Your task to perform on an android device: Open calendar and show me the second week of next month Image 0: 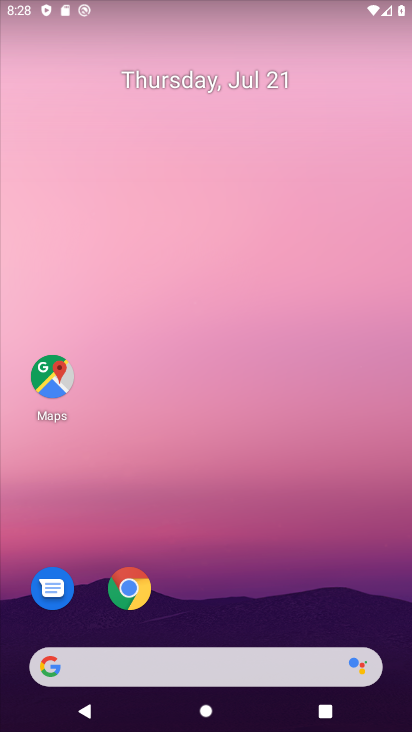
Step 0: click (100, 65)
Your task to perform on an android device: Open calendar and show me the second week of next month Image 1: 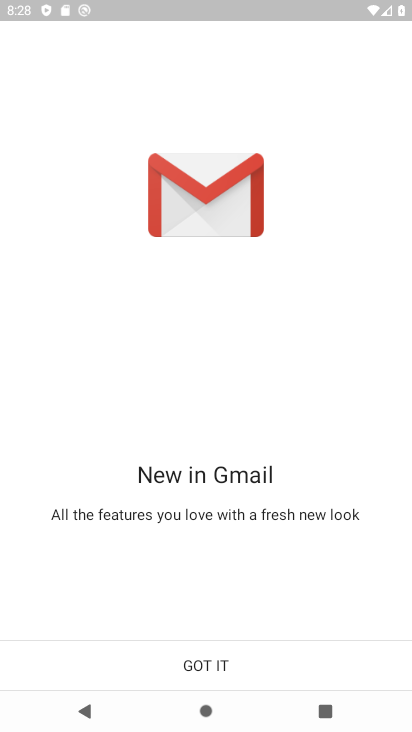
Step 1: drag from (225, 538) to (165, 118)
Your task to perform on an android device: Open calendar and show me the second week of next month Image 2: 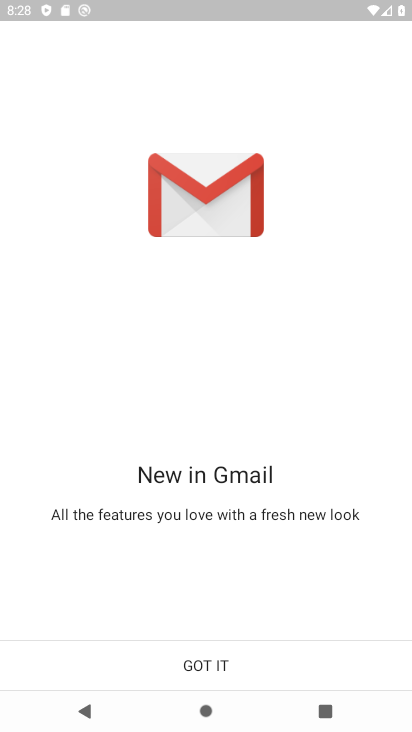
Step 2: press back button
Your task to perform on an android device: Open calendar and show me the second week of next month Image 3: 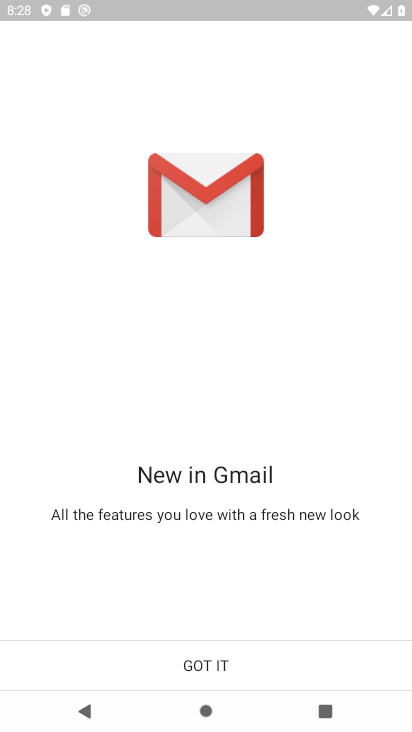
Step 3: press back button
Your task to perform on an android device: Open calendar and show me the second week of next month Image 4: 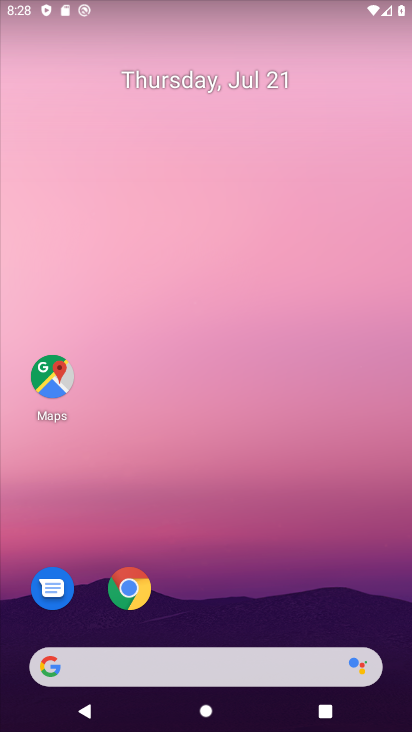
Step 4: drag from (235, 652) to (165, 134)
Your task to perform on an android device: Open calendar and show me the second week of next month Image 5: 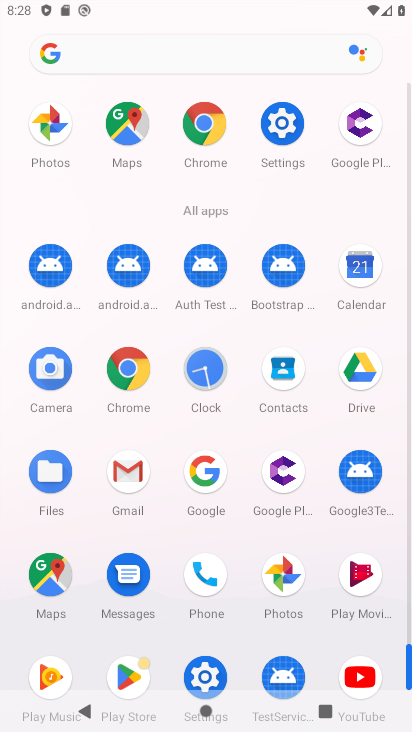
Step 5: click (366, 265)
Your task to perform on an android device: Open calendar and show me the second week of next month Image 6: 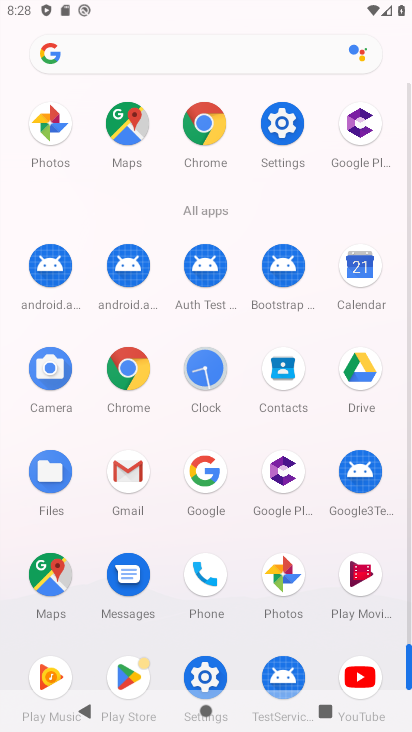
Step 6: click (366, 267)
Your task to perform on an android device: Open calendar and show me the second week of next month Image 7: 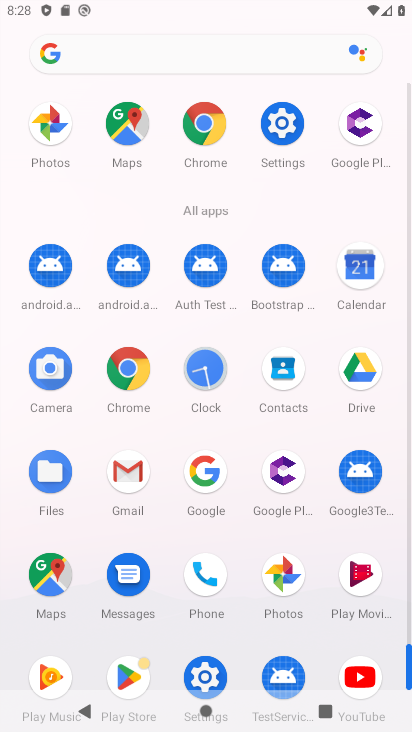
Step 7: click (366, 268)
Your task to perform on an android device: Open calendar and show me the second week of next month Image 8: 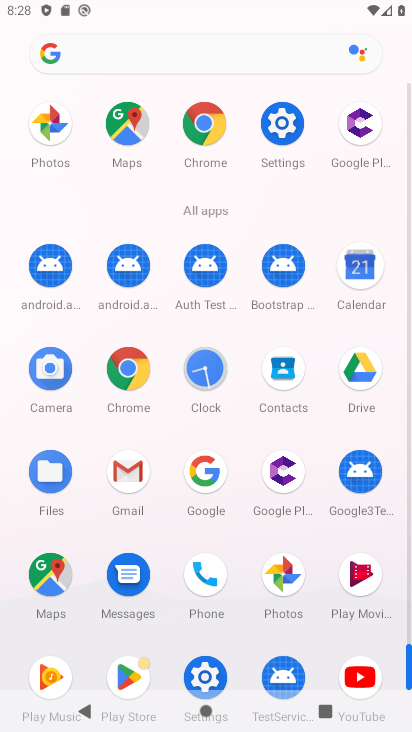
Step 8: click (366, 268)
Your task to perform on an android device: Open calendar and show me the second week of next month Image 9: 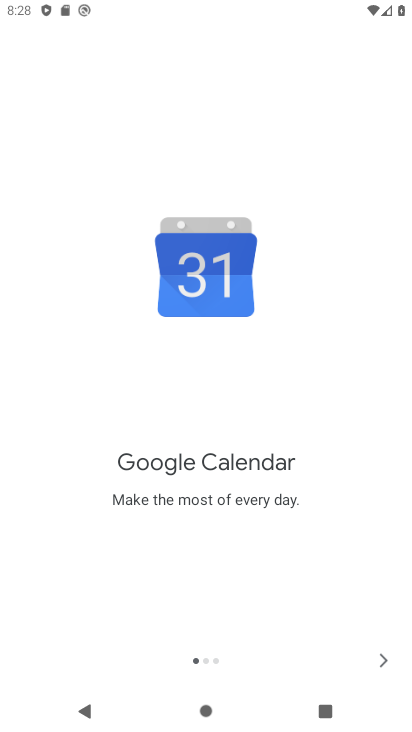
Step 9: click (378, 648)
Your task to perform on an android device: Open calendar and show me the second week of next month Image 10: 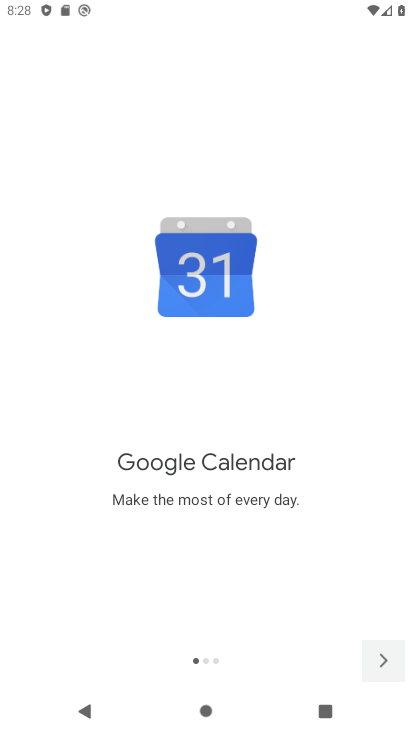
Step 10: click (385, 658)
Your task to perform on an android device: Open calendar and show me the second week of next month Image 11: 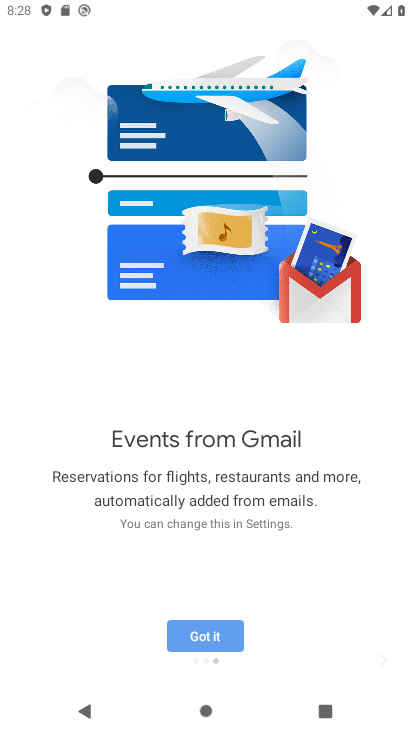
Step 11: click (385, 658)
Your task to perform on an android device: Open calendar and show me the second week of next month Image 12: 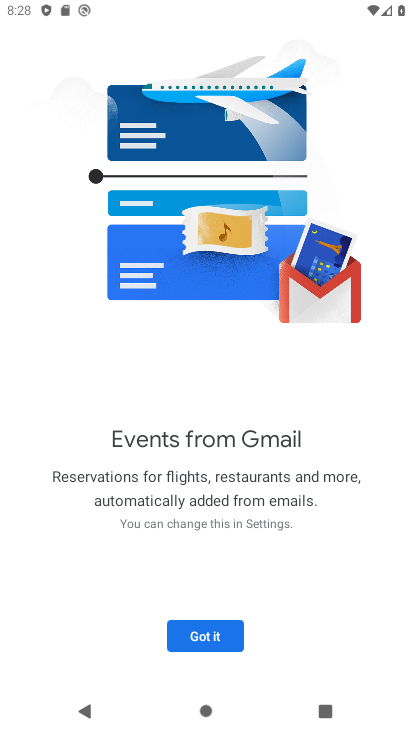
Step 12: click (385, 658)
Your task to perform on an android device: Open calendar and show me the second week of next month Image 13: 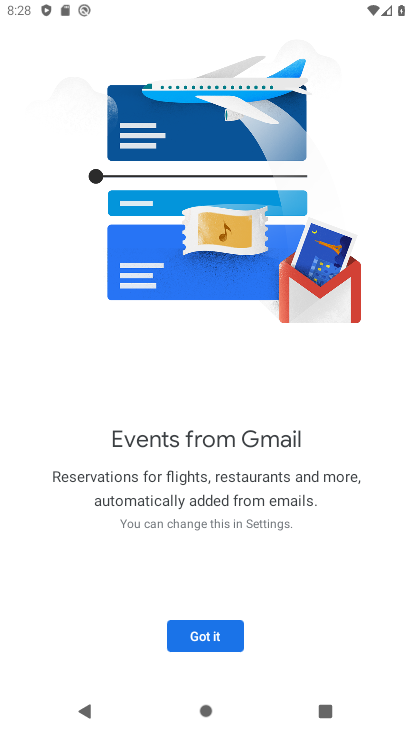
Step 13: click (385, 658)
Your task to perform on an android device: Open calendar and show me the second week of next month Image 14: 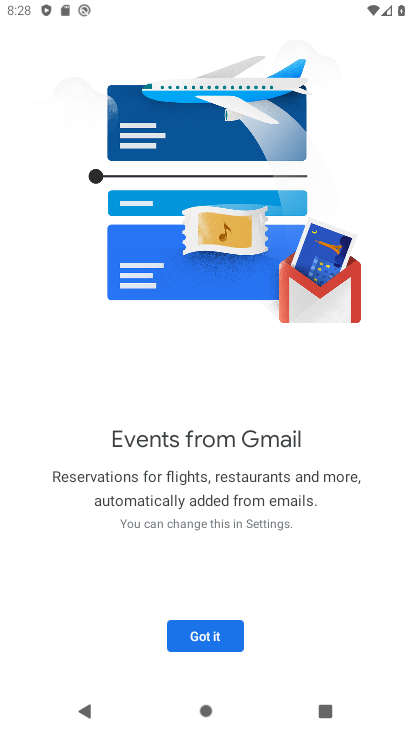
Step 14: click (386, 658)
Your task to perform on an android device: Open calendar and show me the second week of next month Image 15: 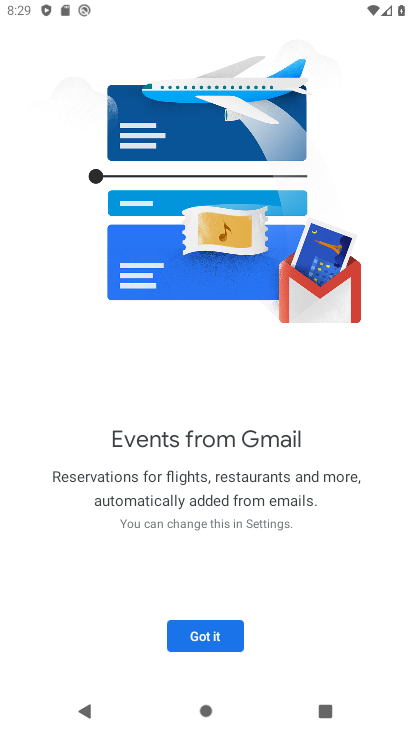
Step 15: click (386, 658)
Your task to perform on an android device: Open calendar and show me the second week of next month Image 16: 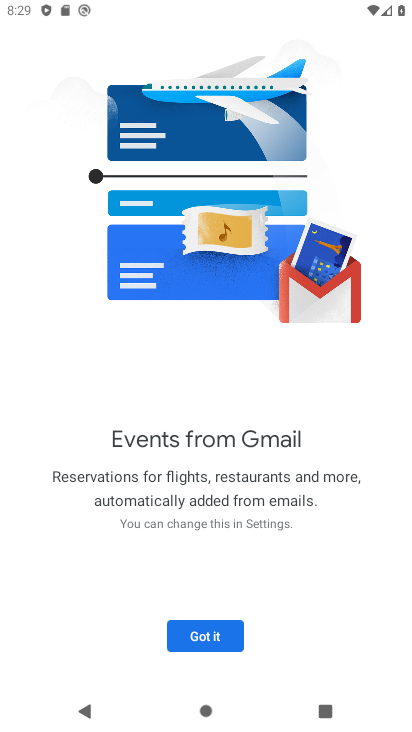
Step 16: click (234, 625)
Your task to perform on an android device: Open calendar and show me the second week of next month Image 17: 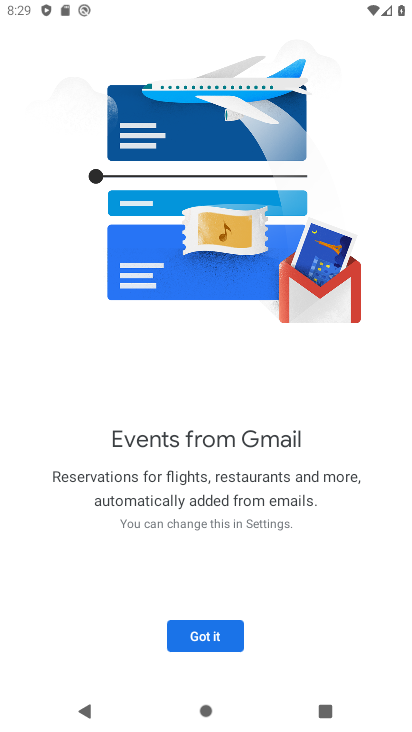
Step 17: click (231, 628)
Your task to perform on an android device: Open calendar and show me the second week of next month Image 18: 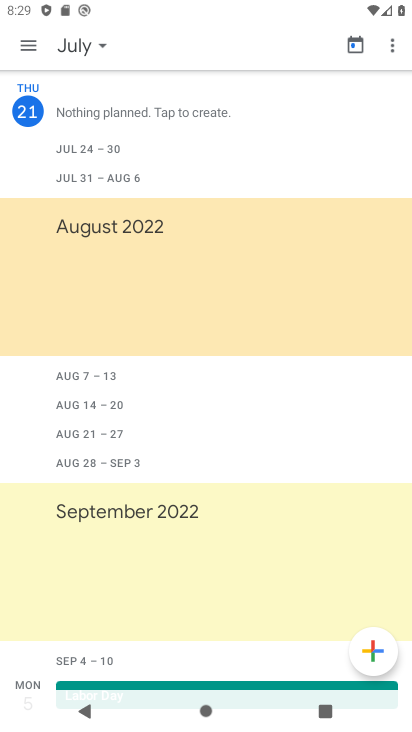
Step 18: click (102, 53)
Your task to perform on an android device: Open calendar and show me the second week of next month Image 19: 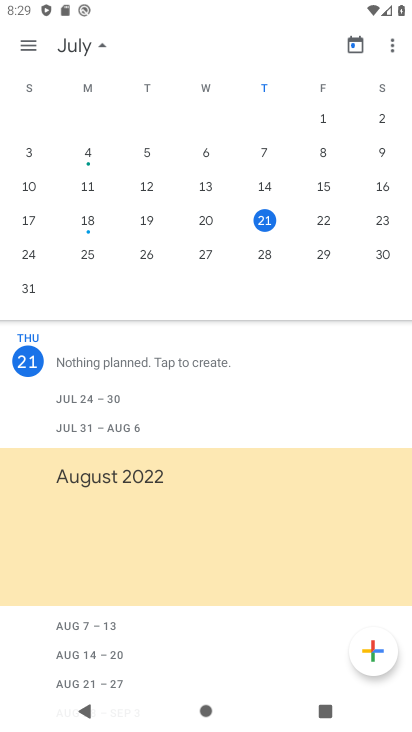
Step 19: drag from (347, 231) to (29, 213)
Your task to perform on an android device: Open calendar and show me the second week of next month Image 20: 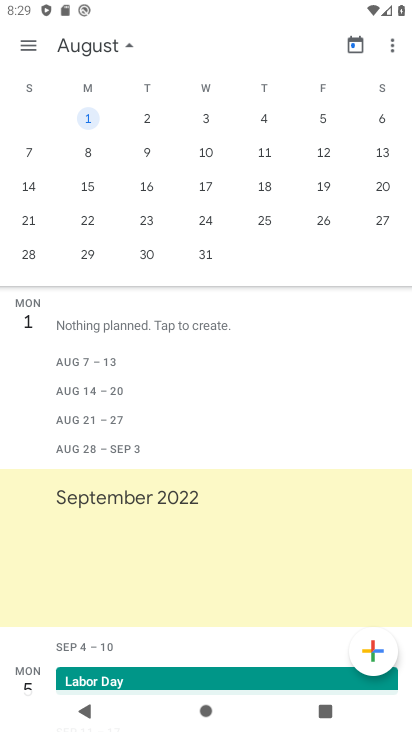
Step 20: click (149, 154)
Your task to perform on an android device: Open calendar and show me the second week of next month Image 21: 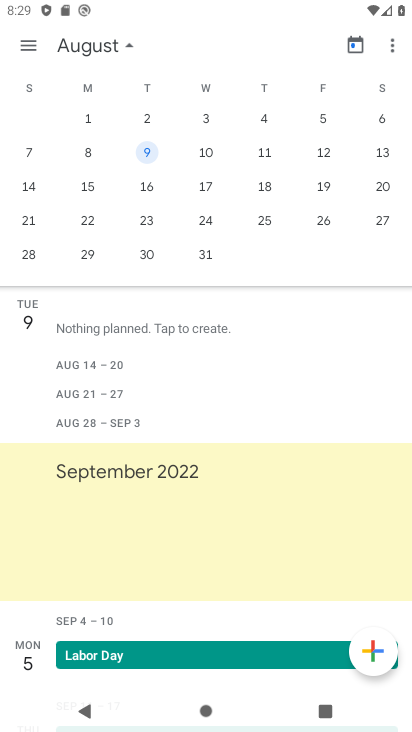
Step 21: click (149, 154)
Your task to perform on an android device: Open calendar and show me the second week of next month Image 22: 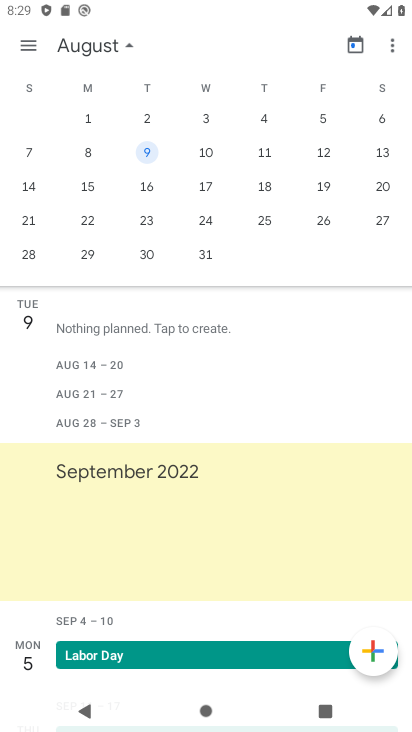
Step 22: task complete